Your task to perform on an android device: turn off improve location accuracy Image 0: 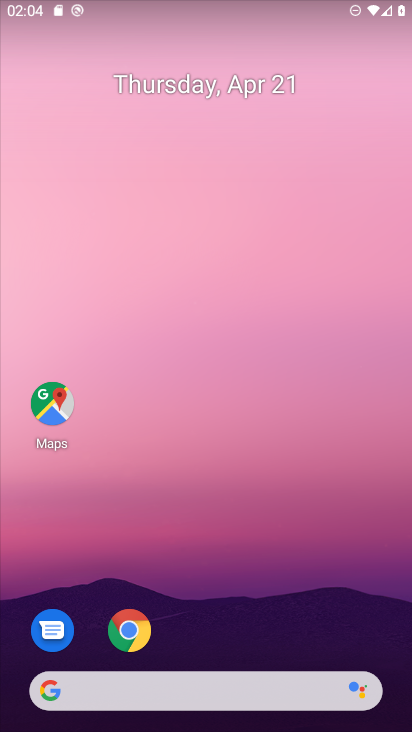
Step 0: drag from (270, 623) to (249, 140)
Your task to perform on an android device: turn off improve location accuracy Image 1: 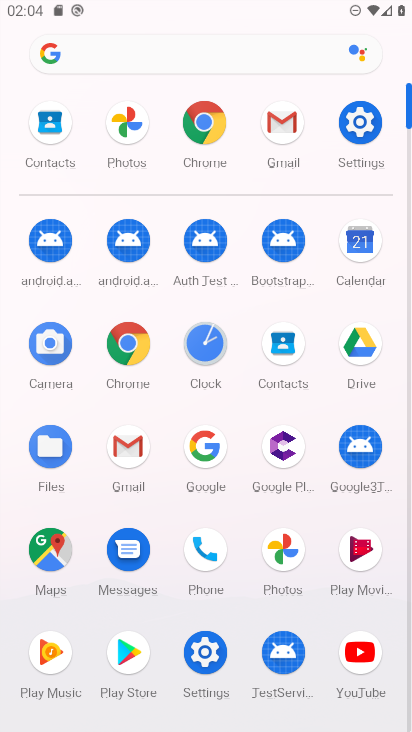
Step 1: click (209, 653)
Your task to perform on an android device: turn off improve location accuracy Image 2: 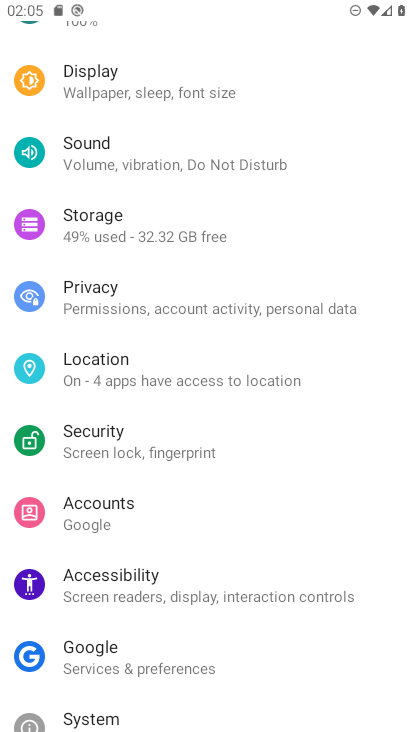
Step 2: click (269, 395)
Your task to perform on an android device: turn off improve location accuracy Image 3: 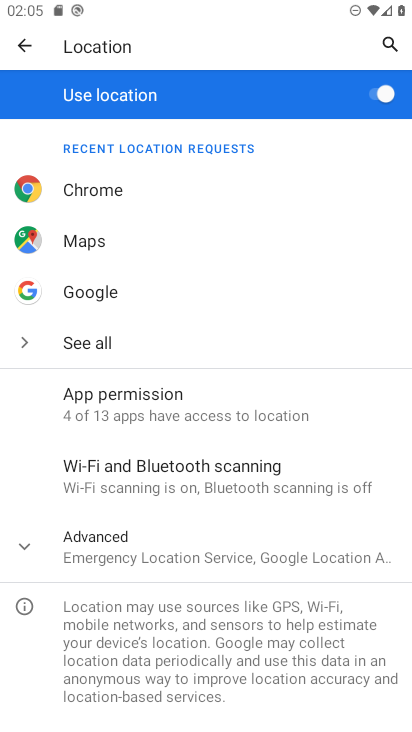
Step 3: click (178, 528)
Your task to perform on an android device: turn off improve location accuracy Image 4: 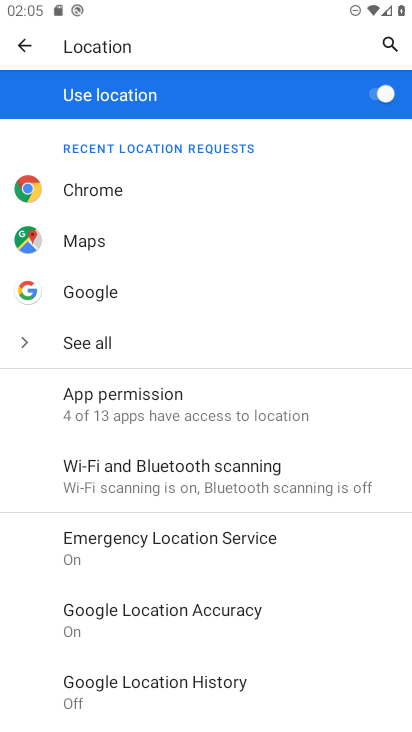
Step 4: click (269, 611)
Your task to perform on an android device: turn off improve location accuracy Image 5: 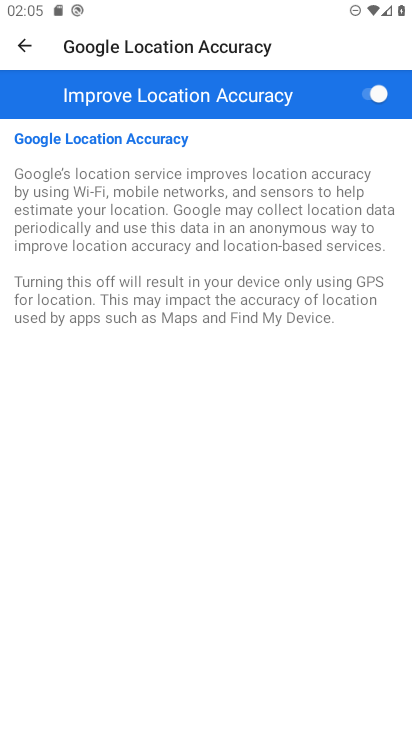
Step 5: click (363, 95)
Your task to perform on an android device: turn off improve location accuracy Image 6: 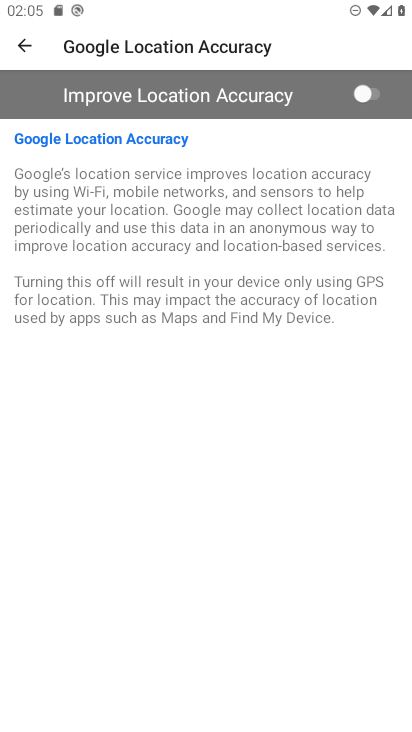
Step 6: task complete